Your task to perform on an android device: turn vacation reply on in the gmail app Image 0: 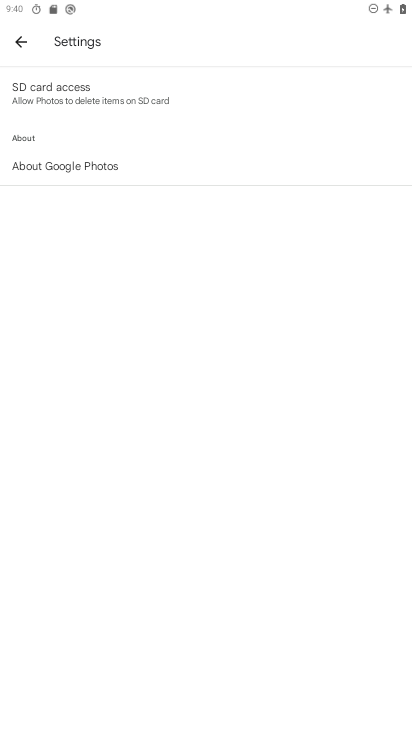
Step 0: press home button
Your task to perform on an android device: turn vacation reply on in the gmail app Image 1: 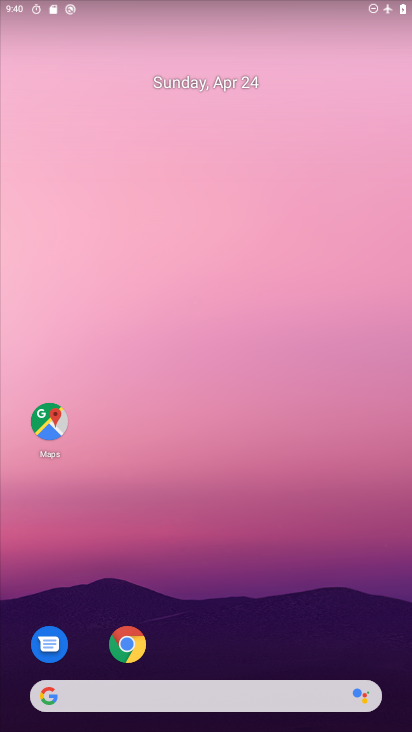
Step 1: drag from (207, 675) to (69, 36)
Your task to perform on an android device: turn vacation reply on in the gmail app Image 2: 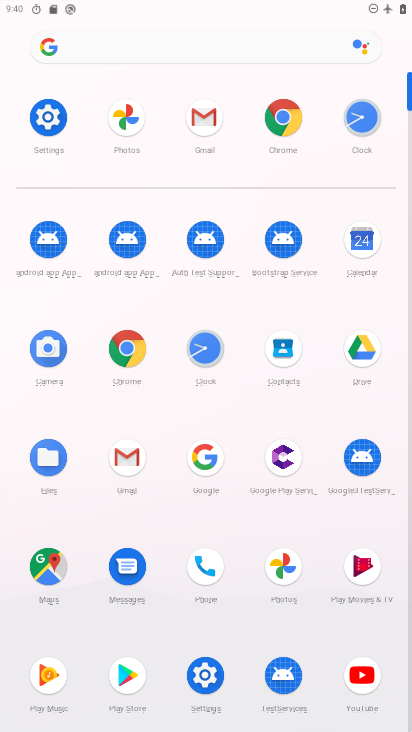
Step 2: click (135, 459)
Your task to perform on an android device: turn vacation reply on in the gmail app Image 3: 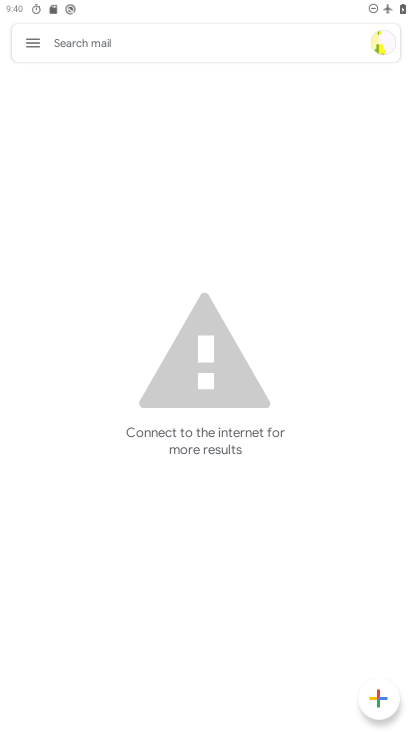
Step 3: click (32, 40)
Your task to perform on an android device: turn vacation reply on in the gmail app Image 4: 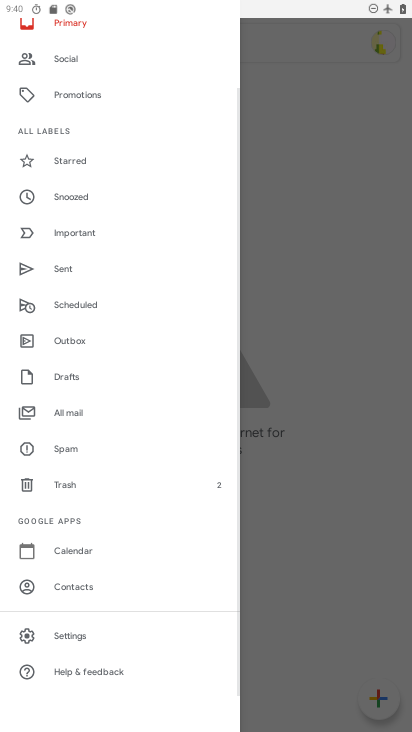
Step 4: click (68, 623)
Your task to perform on an android device: turn vacation reply on in the gmail app Image 5: 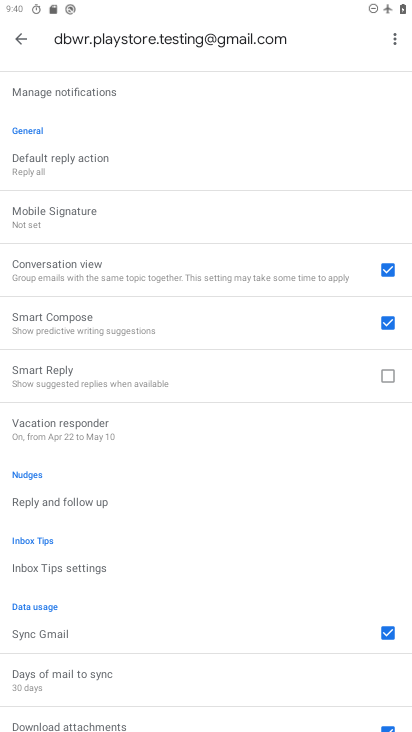
Step 5: click (90, 431)
Your task to perform on an android device: turn vacation reply on in the gmail app Image 6: 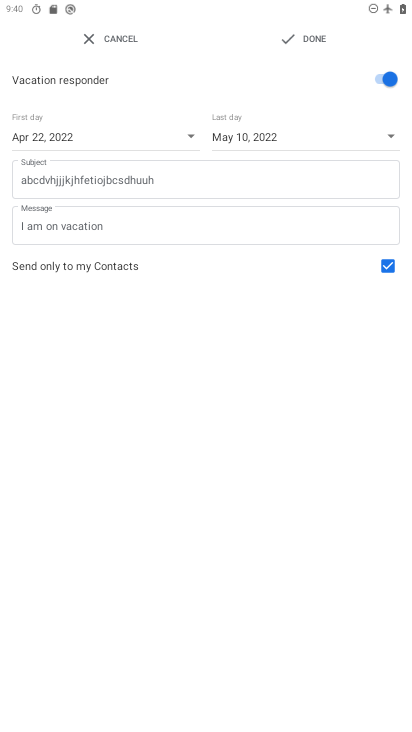
Step 6: click (301, 36)
Your task to perform on an android device: turn vacation reply on in the gmail app Image 7: 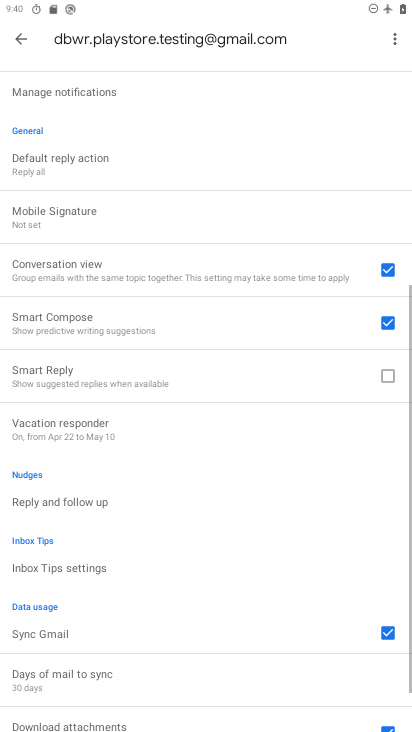
Step 7: task complete